Your task to perform on an android device: Go to accessibility settings Image 0: 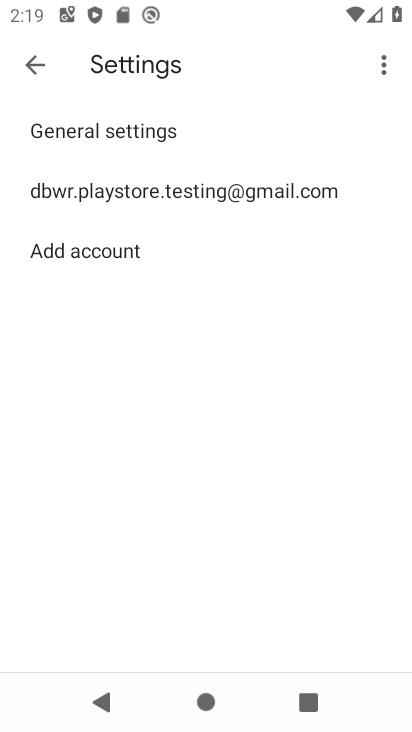
Step 0: press home button
Your task to perform on an android device: Go to accessibility settings Image 1: 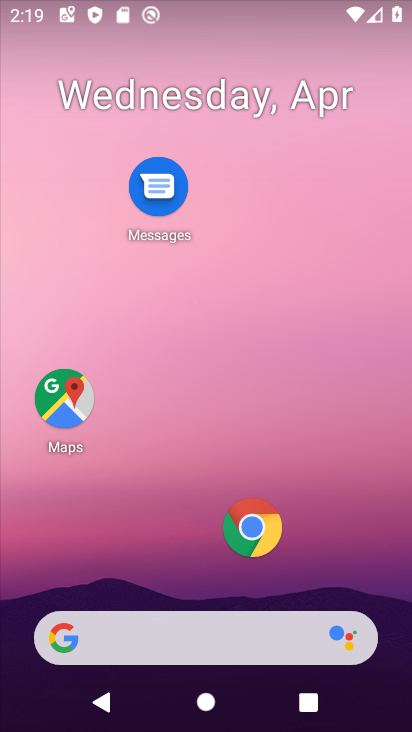
Step 1: drag from (234, 563) to (147, 144)
Your task to perform on an android device: Go to accessibility settings Image 2: 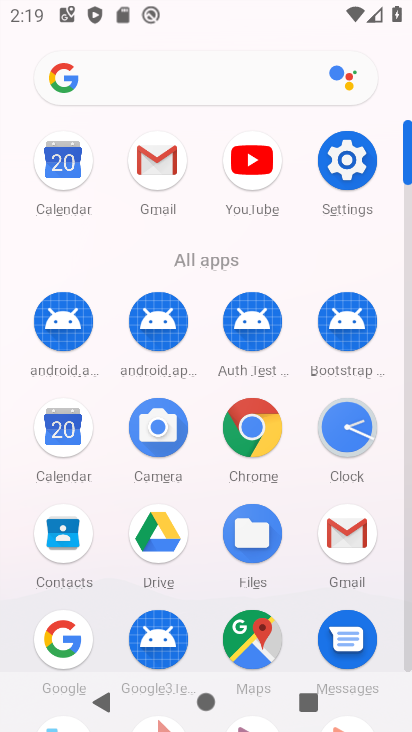
Step 2: drag from (268, 582) to (186, 243)
Your task to perform on an android device: Go to accessibility settings Image 3: 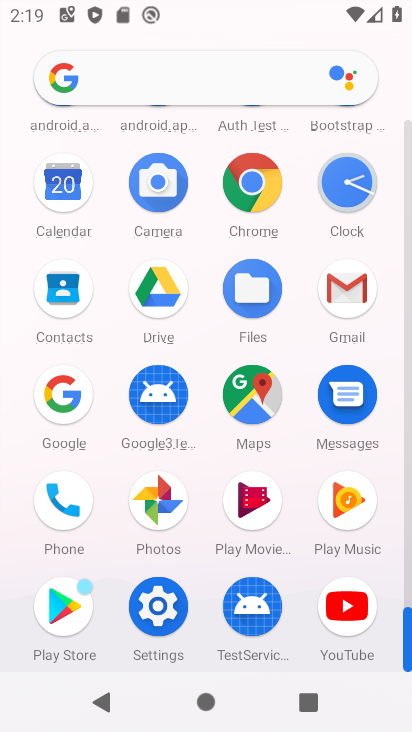
Step 3: click (157, 612)
Your task to perform on an android device: Go to accessibility settings Image 4: 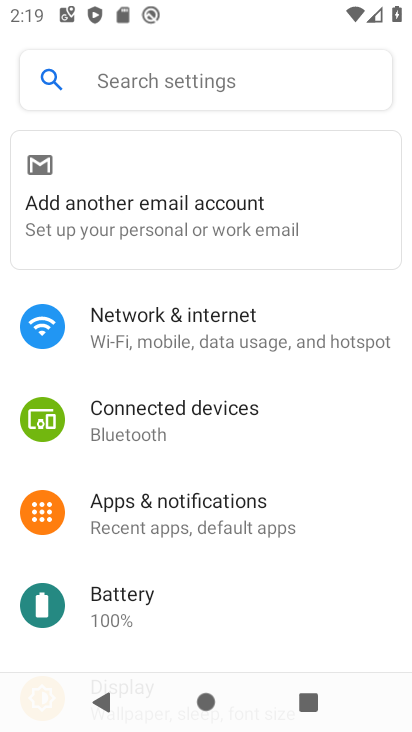
Step 4: drag from (200, 550) to (212, 291)
Your task to perform on an android device: Go to accessibility settings Image 5: 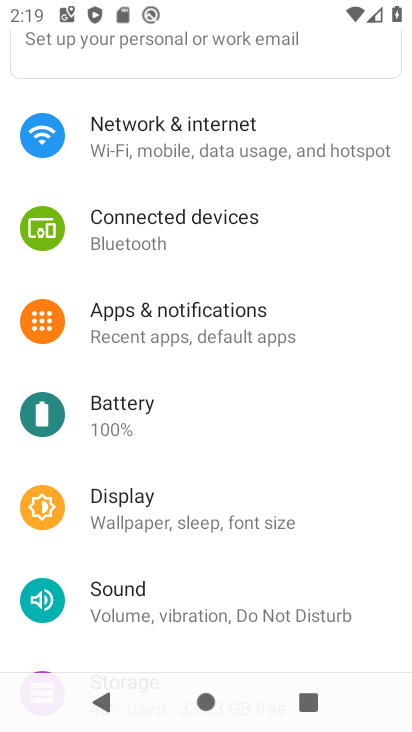
Step 5: drag from (260, 500) to (219, 274)
Your task to perform on an android device: Go to accessibility settings Image 6: 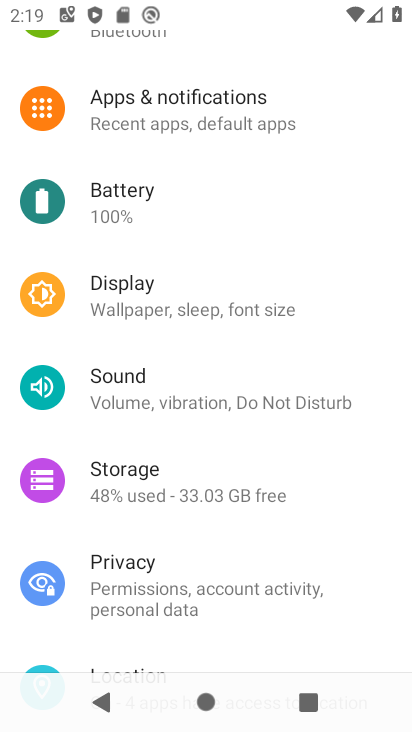
Step 6: drag from (278, 461) to (206, 203)
Your task to perform on an android device: Go to accessibility settings Image 7: 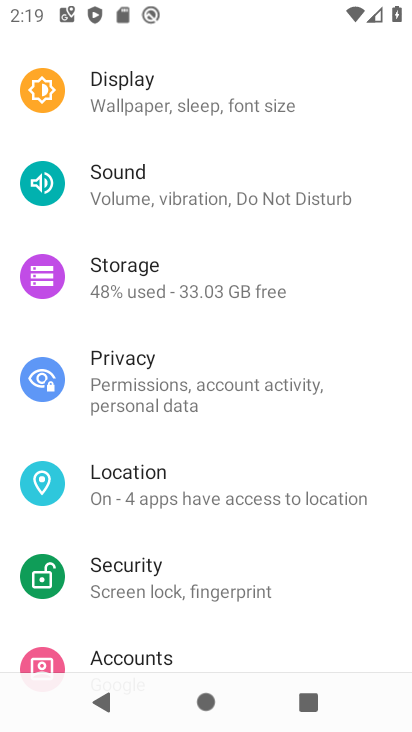
Step 7: drag from (202, 563) to (128, 206)
Your task to perform on an android device: Go to accessibility settings Image 8: 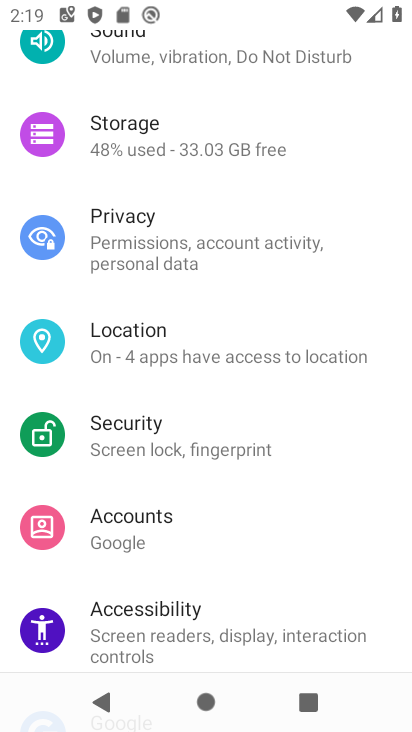
Step 8: click (189, 627)
Your task to perform on an android device: Go to accessibility settings Image 9: 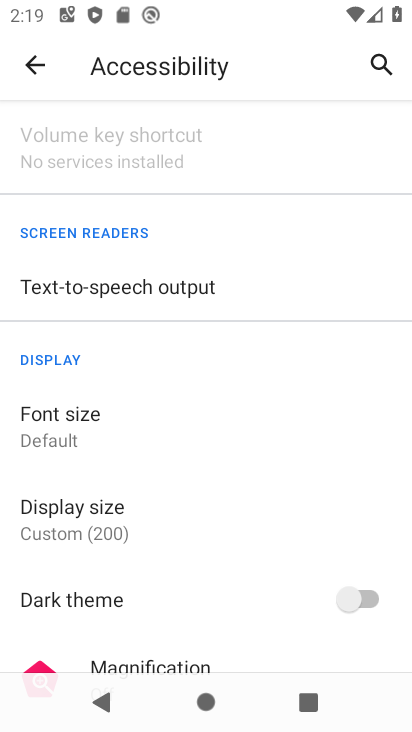
Step 9: task complete